Your task to perform on an android device: remove spam from my inbox in the gmail app Image 0: 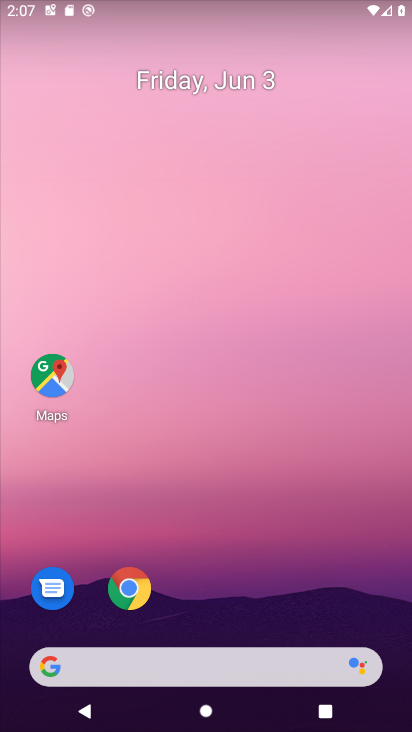
Step 0: drag from (181, 481) to (197, 10)
Your task to perform on an android device: remove spam from my inbox in the gmail app Image 1: 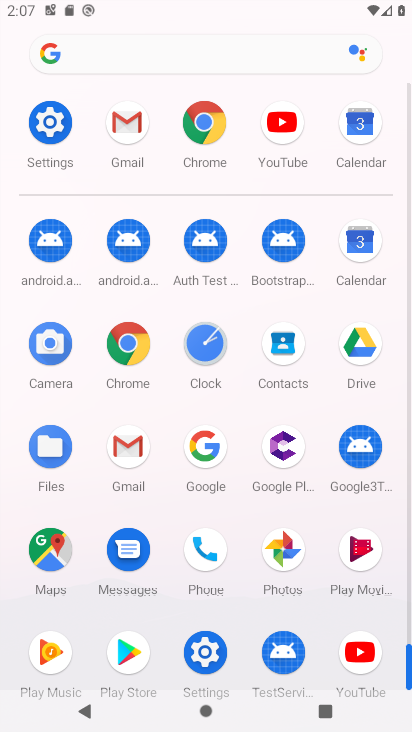
Step 1: click (126, 464)
Your task to perform on an android device: remove spam from my inbox in the gmail app Image 2: 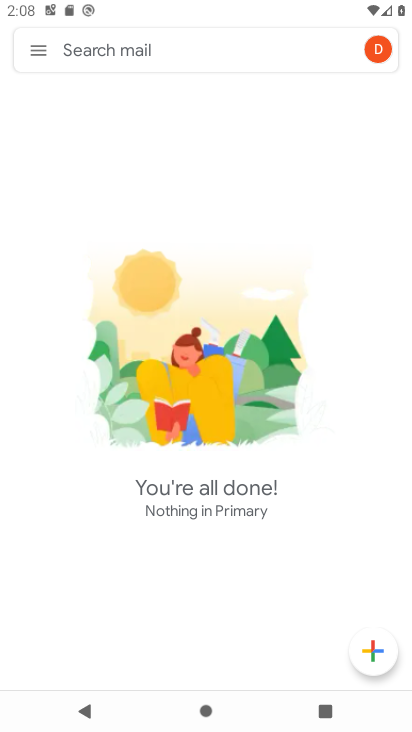
Step 2: click (28, 49)
Your task to perform on an android device: remove spam from my inbox in the gmail app Image 3: 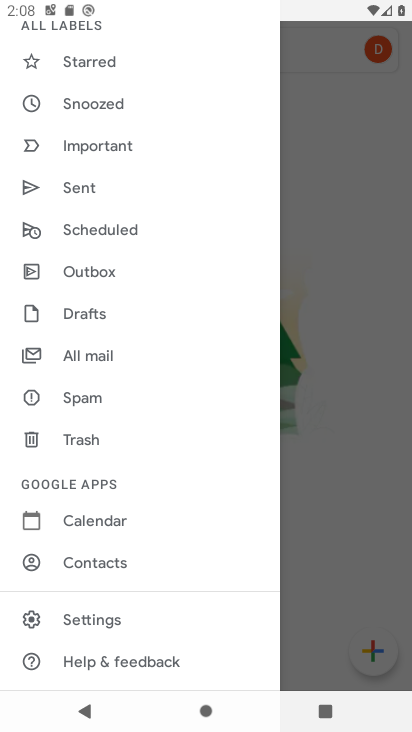
Step 3: click (72, 405)
Your task to perform on an android device: remove spam from my inbox in the gmail app Image 4: 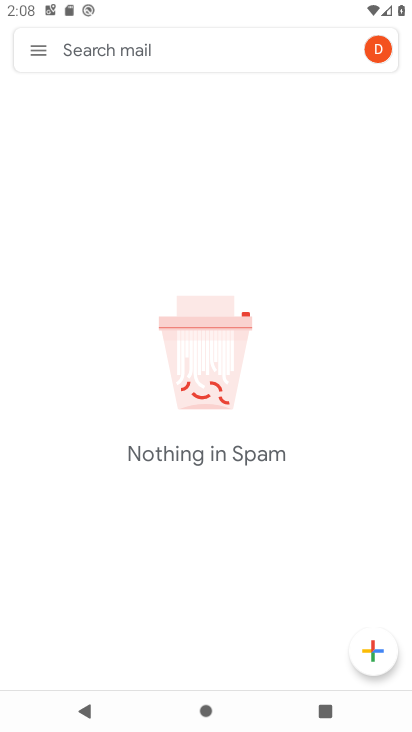
Step 4: task complete